Your task to perform on an android device: turn on the 24-hour format for clock Image 0: 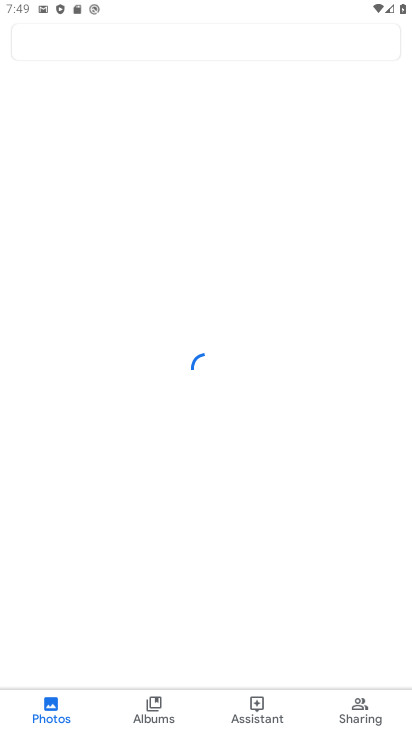
Step 0: press home button
Your task to perform on an android device: turn on the 24-hour format for clock Image 1: 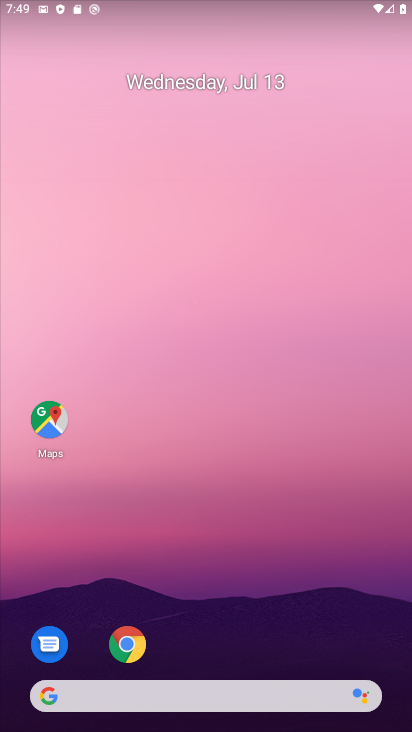
Step 1: drag from (328, 564) to (283, 71)
Your task to perform on an android device: turn on the 24-hour format for clock Image 2: 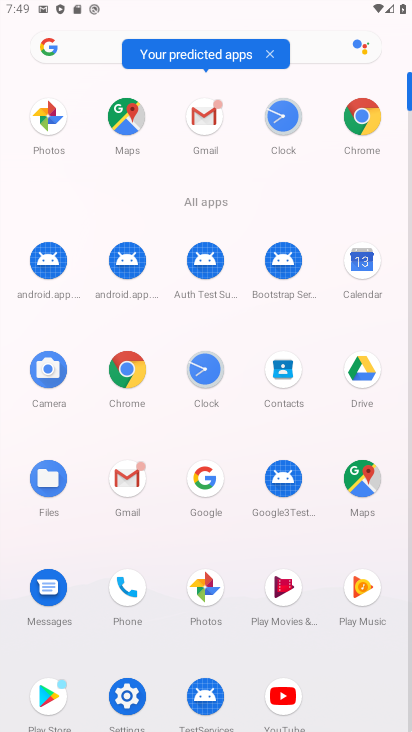
Step 2: click (220, 365)
Your task to perform on an android device: turn on the 24-hour format for clock Image 3: 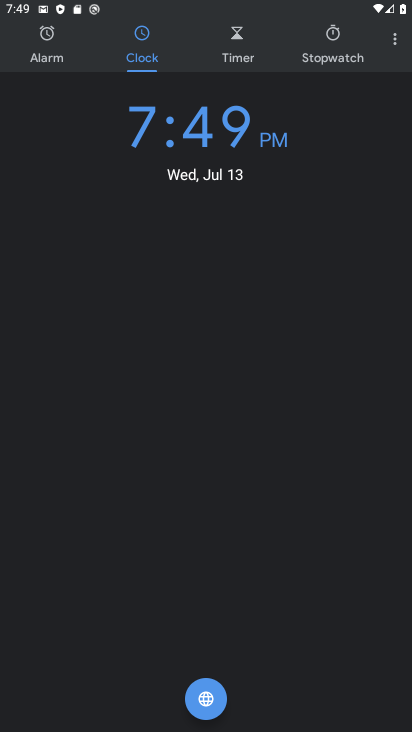
Step 3: click (401, 47)
Your task to perform on an android device: turn on the 24-hour format for clock Image 4: 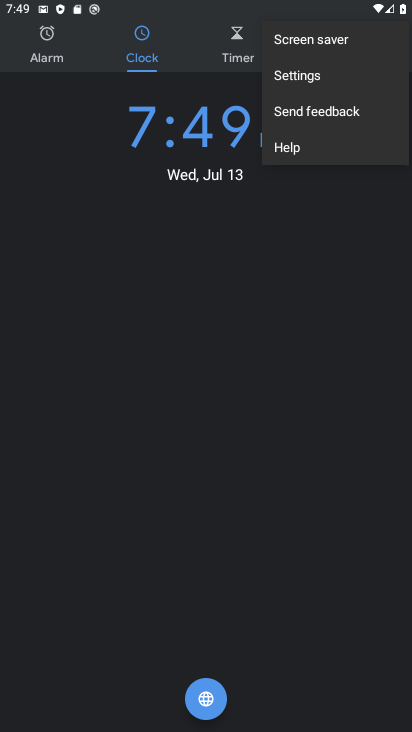
Step 4: click (327, 73)
Your task to perform on an android device: turn on the 24-hour format for clock Image 5: 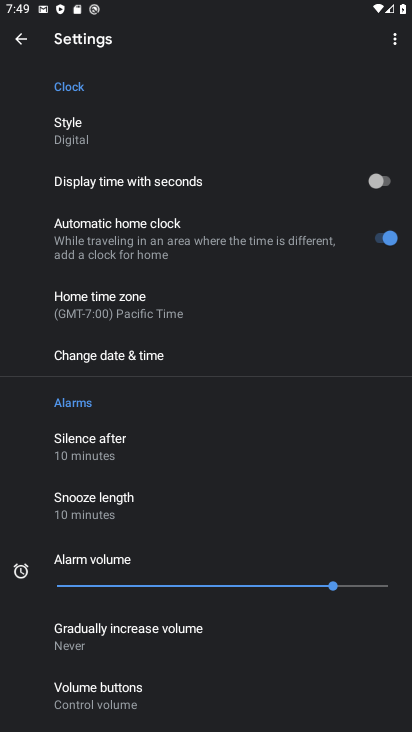
Step 5: click (110, 341)
Your task to perform on an android device: turn on the 24-hour format for clock Image 6: 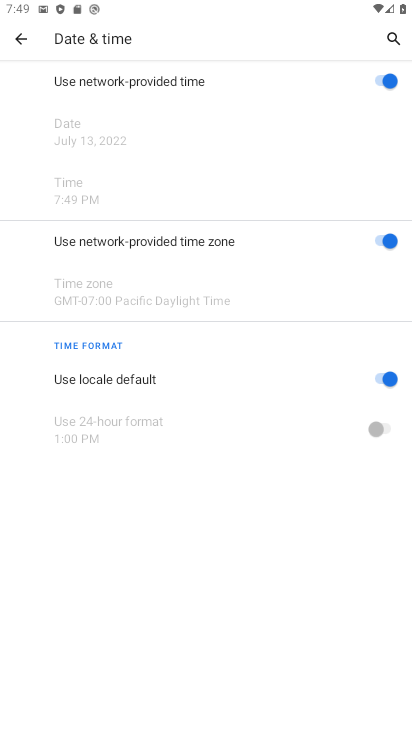
Step 6: click (390, 386)
Your task to perform on an android device: turn on the 24-hour format for clock Image 7: 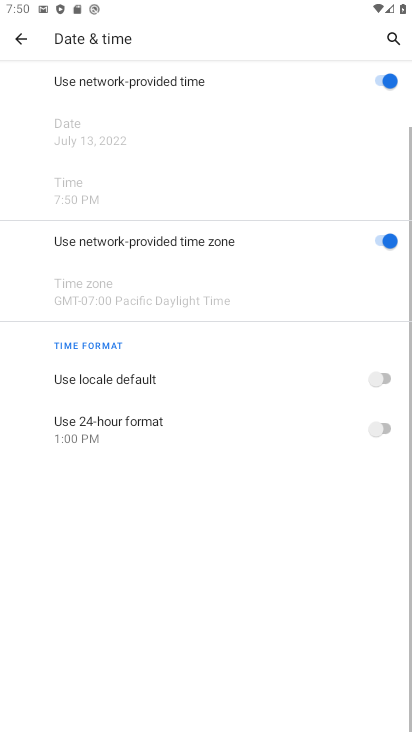
Step 7: click (377, 420)
Your task to perform on an android device: turn on the 24-hour format for clock Image 8: 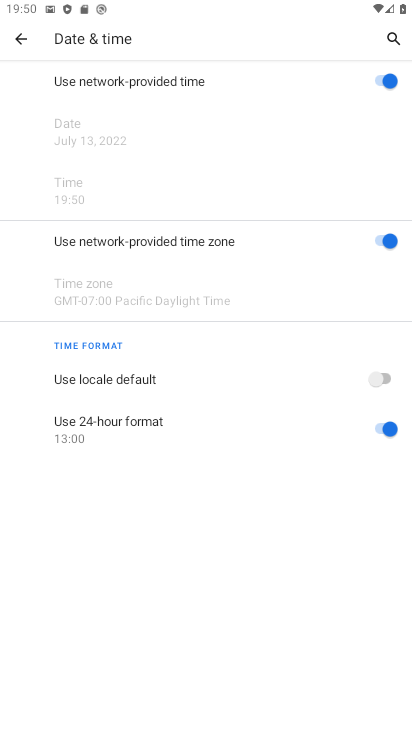
Step 8: task complete